Your task to perform on an android device: change keyboard looks Image 0: 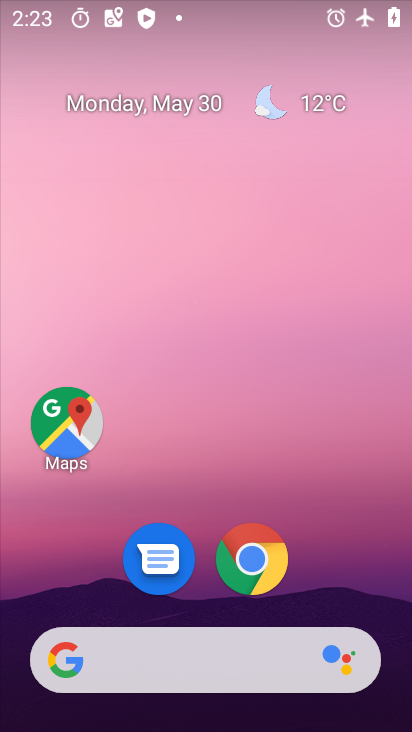
Step 0: drag from (212, 428) to (271, 73)
Your task to perform on an android device: change keyboard looks Image 1: 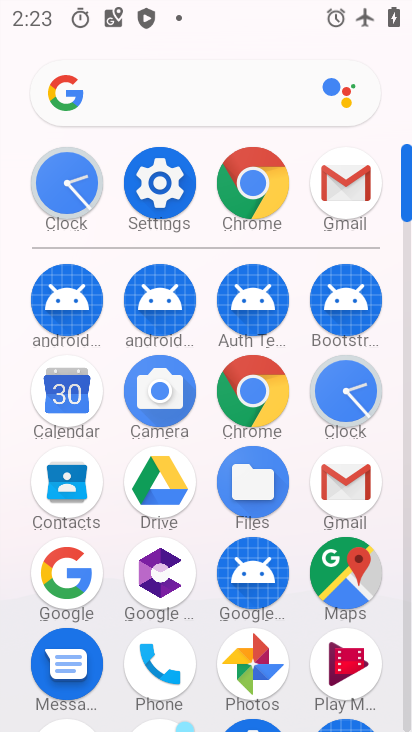
Step 1: click (175, 168)
Your task to perform on an android device: change keyboard looks Image 2: 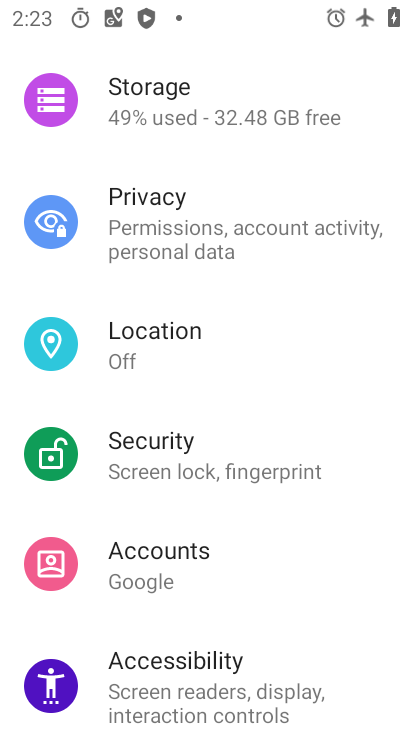
Step 2: drag from (156, 678) to (251, 95)
Your task to perform on an android device: change keyboard looks Image 3: 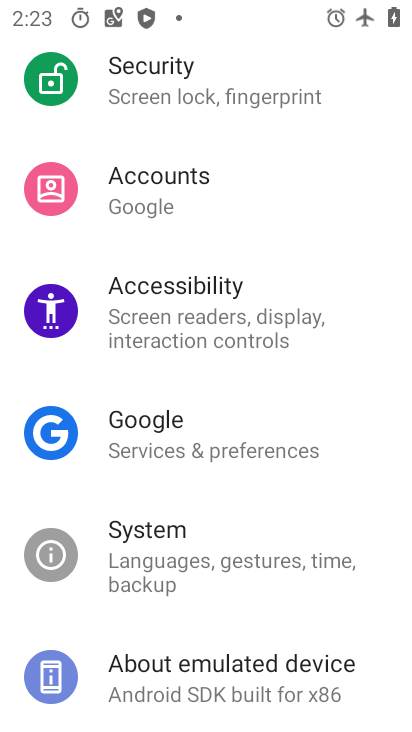
Step 3: click (165, 545)
Your task to perform on an android device: change keyboard looks Image 4: 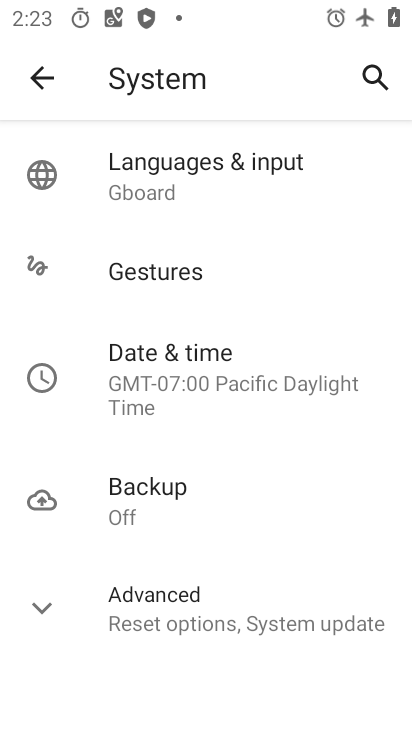
Step 4: click (134, 172)
Your task to perform on an android device: change keyboard looks Image 5: 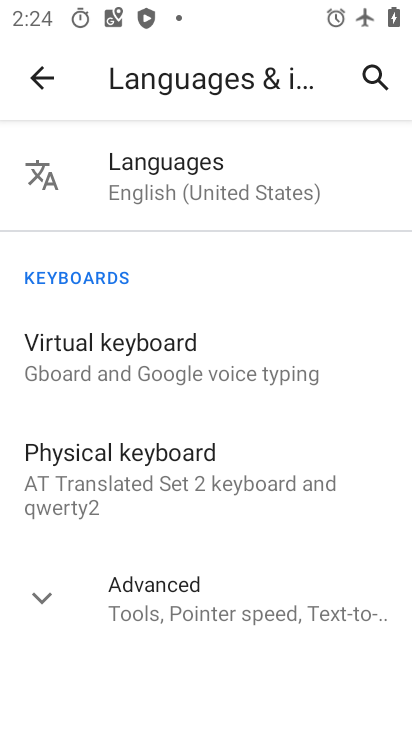
Step 5: click (107, 351)
Your task to perform on an android device: change keyboard looks Image 6: 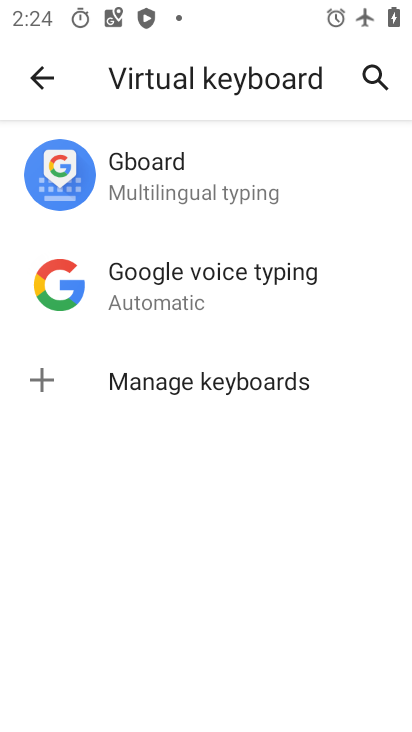
Step 6: click (174, 171)
Your task to perform on an android device: change keyboard looks Image 7: 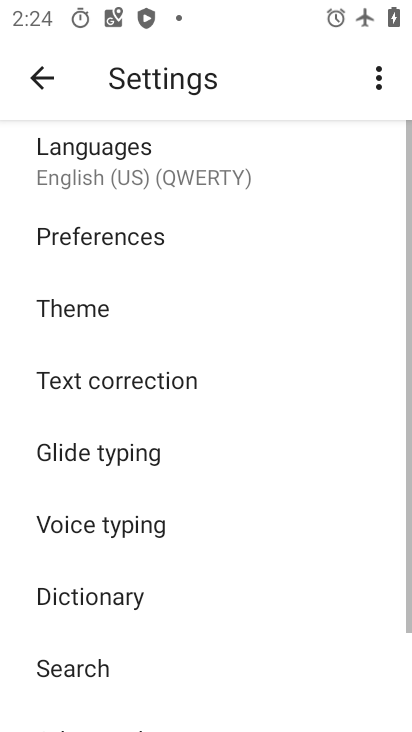
Step 7: click (79, 302)
Your task to perform on an android device: change keyboard looks Image 8: 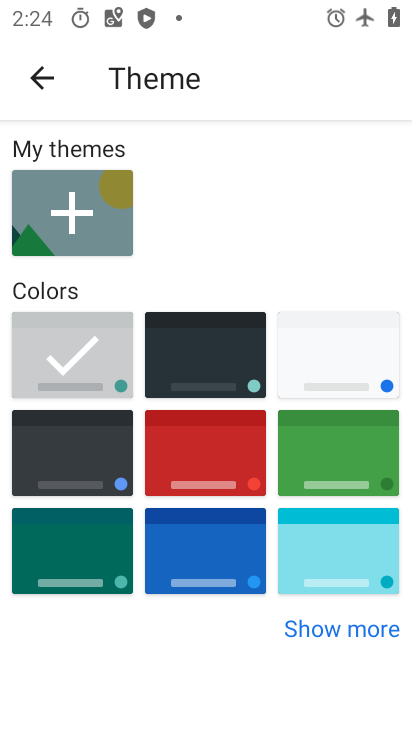
Step 8: click (189, 455)
Your task to perform on an android device: change keyboard looks Image 9: 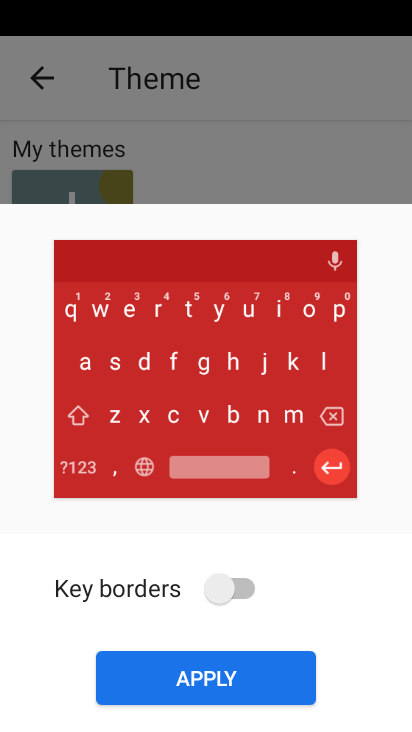
Step 9: click (174, 650)
Your task to perform on an android device: change keyboard looks Image 10: 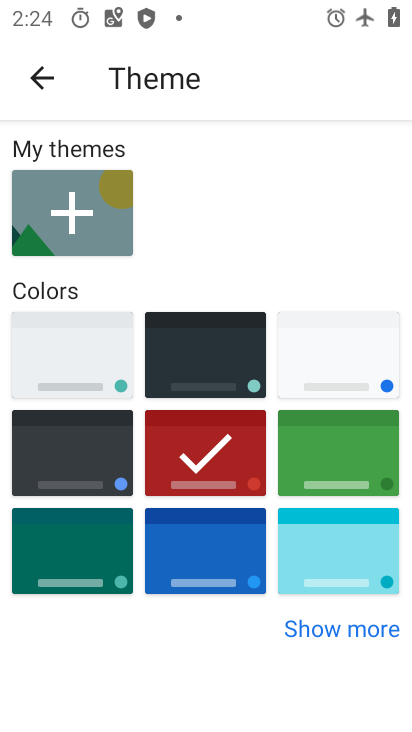
Step 10: task complete